Your task to perform on an android device: turn off airplane mode Image 0: 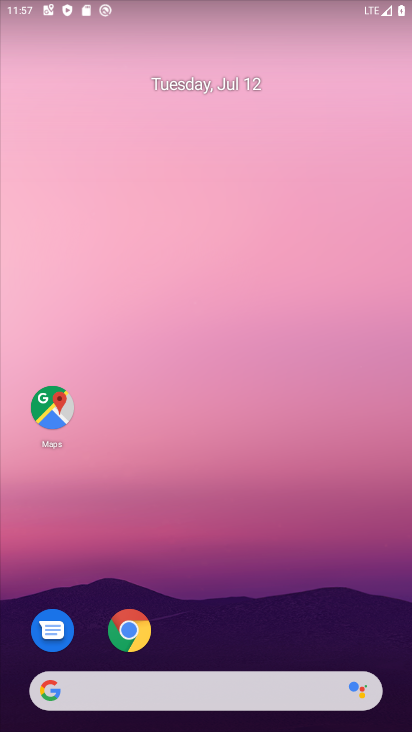
Step 0: drag from (288, 0) to (370, 466)
Your task to perform on an android device: turn off airplane mode Image 1: 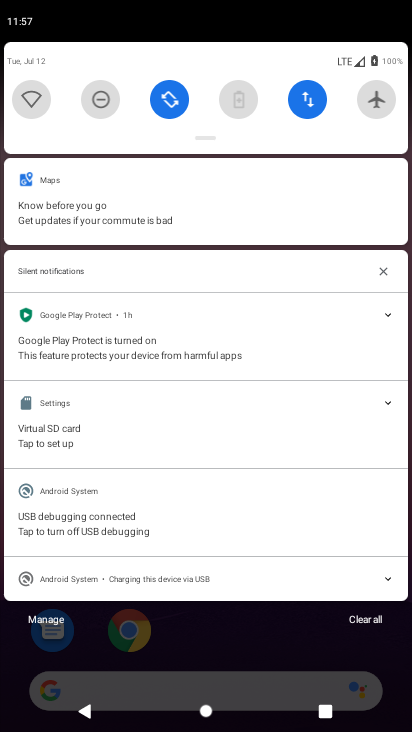
Step 1: task complete